Your task to perform on an android device: Show me productivity apps on the Play Store Image 0: 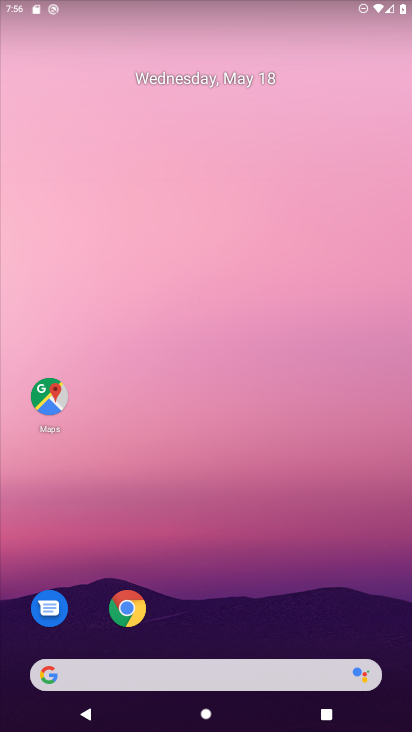
Step 0: drag from (186, 541) to (175, 276)
Your task to perform on an android device: Show me productivity apps on the Play Store Image 1: 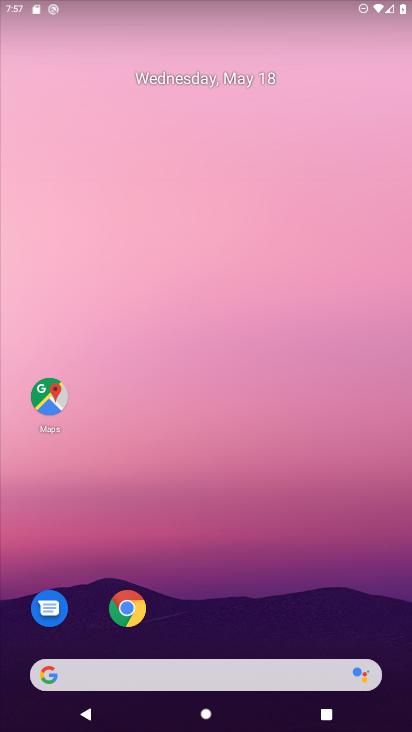
Step 1: drag from (182, 611) to (291, 9)
Your task to perform on an android device: Show me productivity apps on the Play Store Image 2: 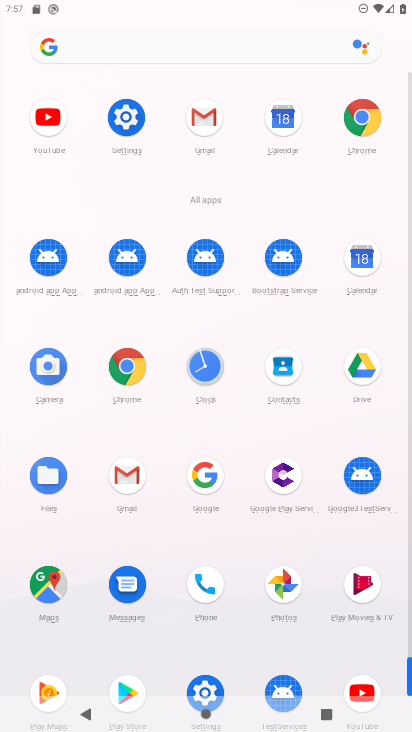
Step 2: click (125, 688)
Your task to perform on an android device: Show me productivity apps on the Play Store Image 3: 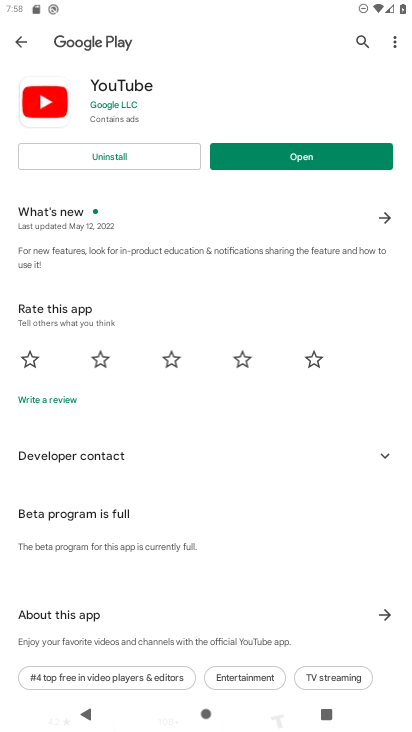
Step 3: click (19, 35)
Your task to perform on an android device: Show me productivity apps on the Play Store Image 4: 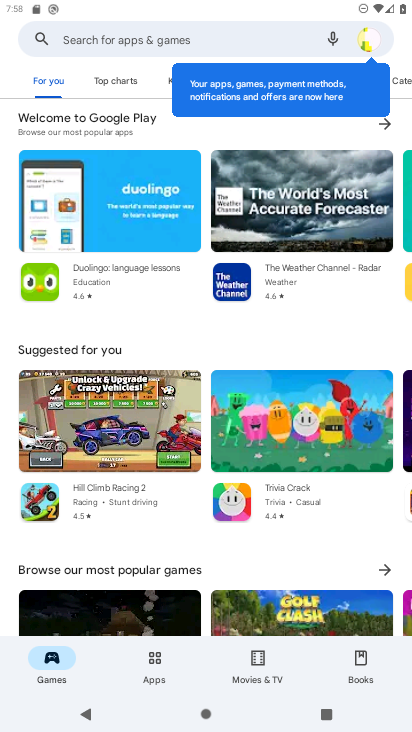
Step 4: click (165, 657)
Your task to perform on an android device: Show me productivity apps on the Play Store Image 5: 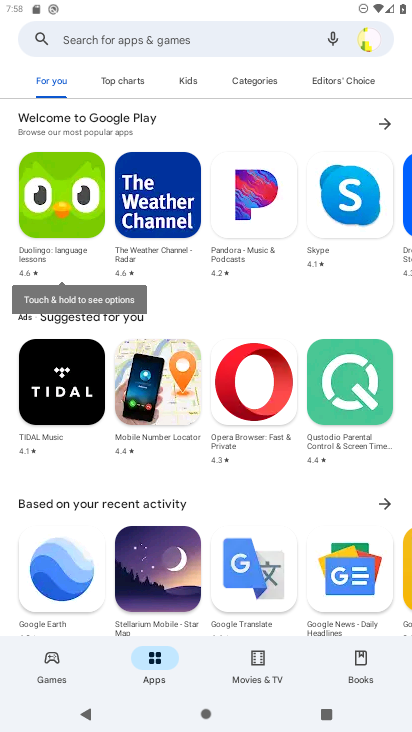
Step 5: click (239, 84)
Your task to perform on an android device: Show me productivity apps on the Play Store Image 6: 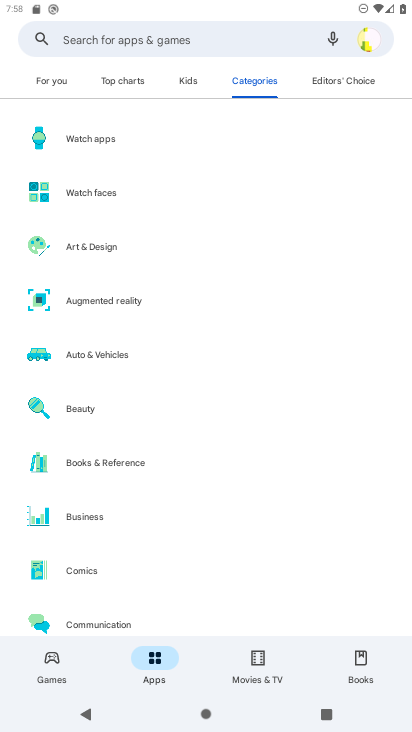
Step 6: drag from (138, 553) to (112, 289)
Your task to perform on an android device: Show me productivity apps on the Play Store Image 7: 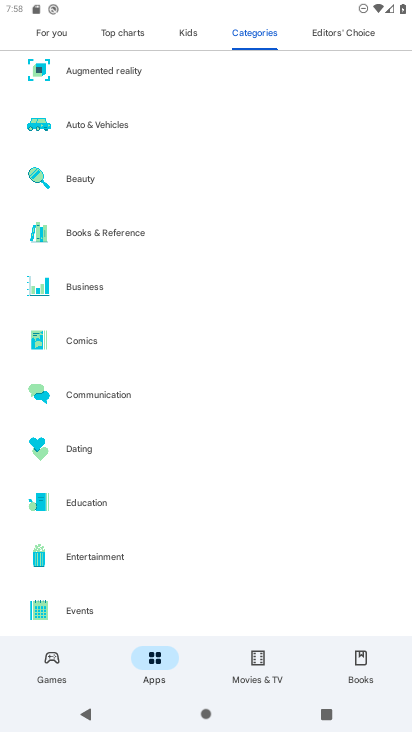
Step 7: drag from (129, 479) to (131, 224)
Your task to perform on an android device: Show me productivity apps on the Play Store Image 8: 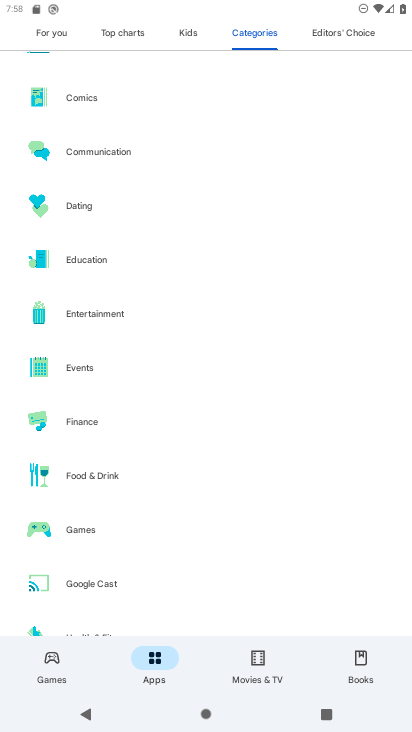
Step 8: drag from (123, 547) to (114, 190)
Your task to perform on an android device: Show me productivity apps on the Play Store Image 9: 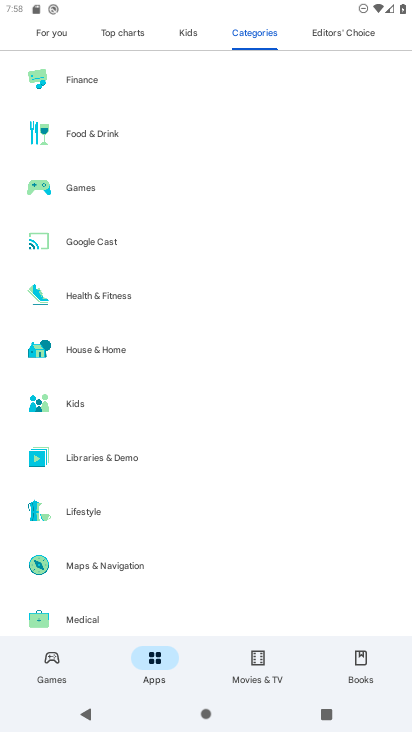
Step 9: drag from (116, 542) to (102, 213)
Your task to perform on an android device: Show me productivity apps on the Play Store Image 10: 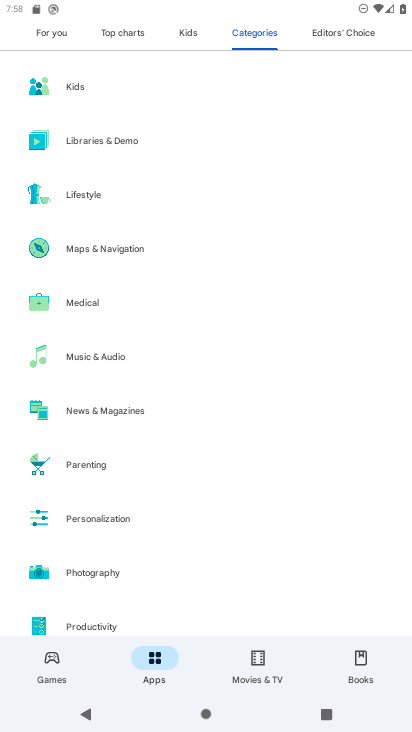
Step 10: drag from (111, 562) to (105, 399)
Your task to perform on an android device: Show me productivity apps on the Play Store Image 11: 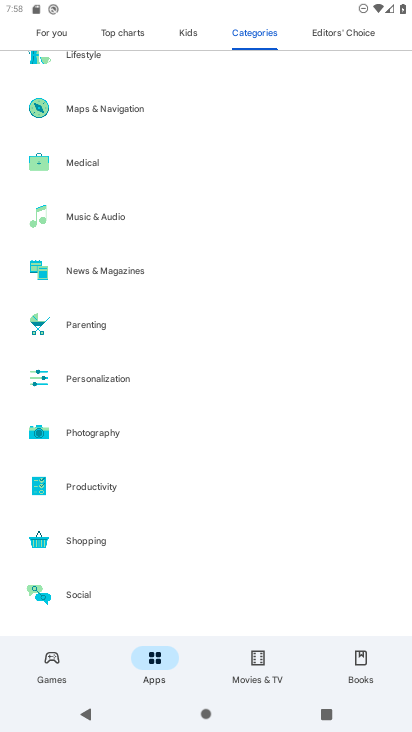
Step 11: click (91, 487)
Your task to perform on an android device: Show me productivity apps on the Play Store Image 12: 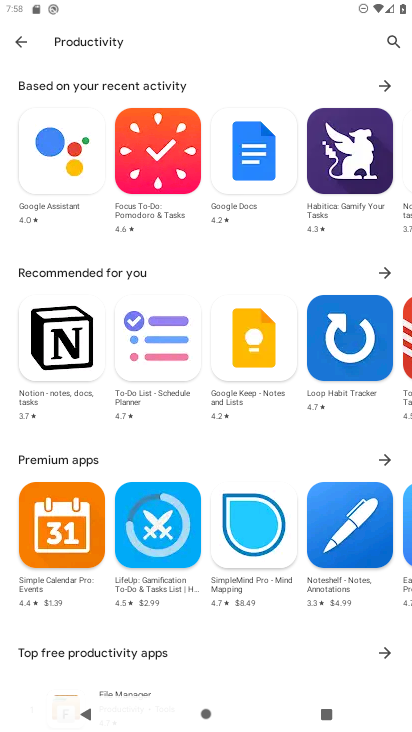
Step 12: task complete